Your task to perform on an android device: turn vacation reply on in the gmail app Image 0: 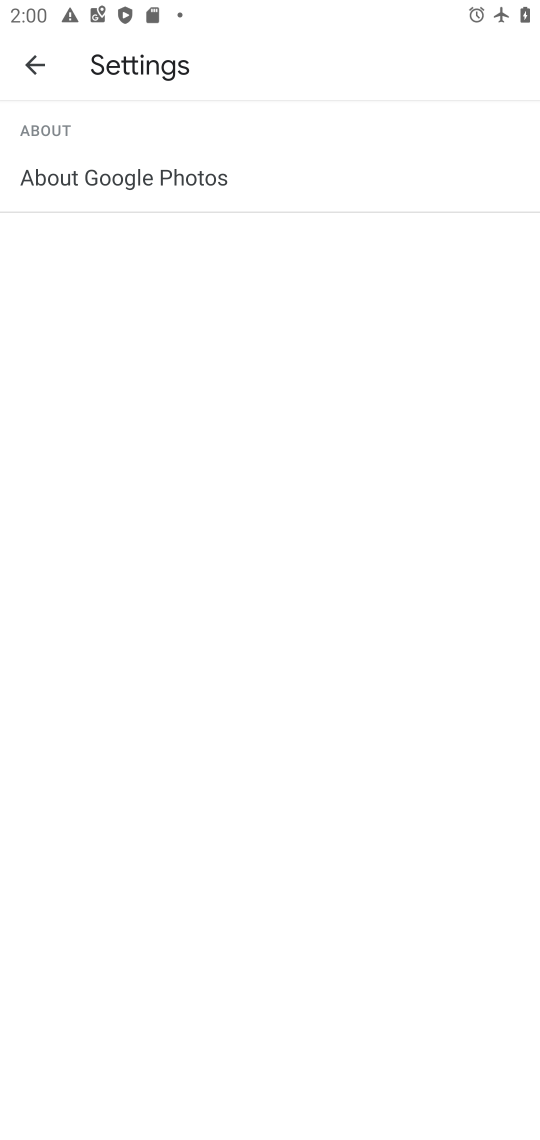
Step 0: press home button
Your task to perform on an android device: turn vacation reply on in the gmail app Image 1: 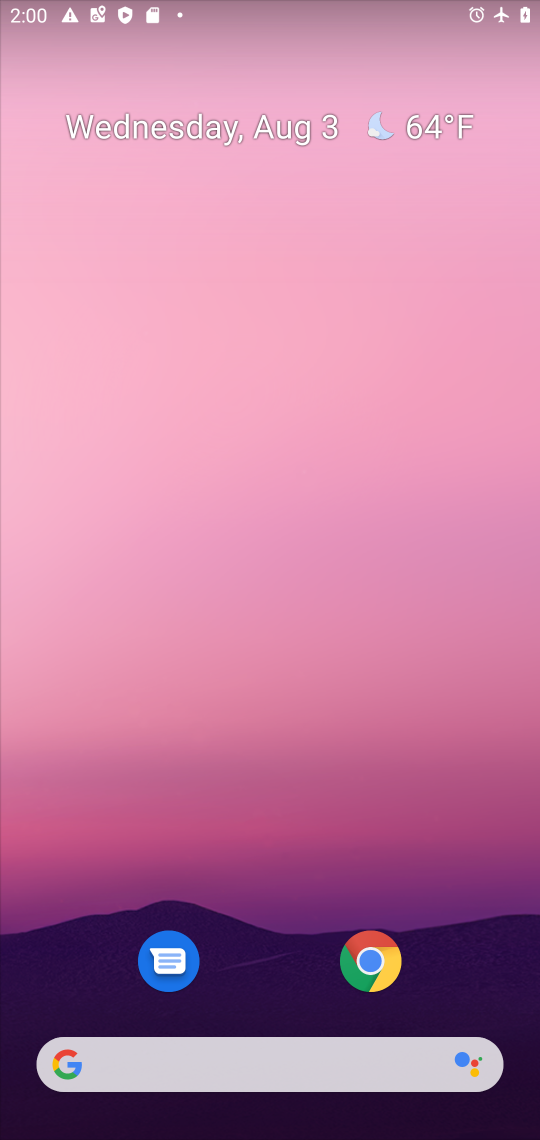
Step 1: drag from (297, 995) to (326, 25)
Your task to perform on an android device: turn vacation reply on in the gmail app Image 2: 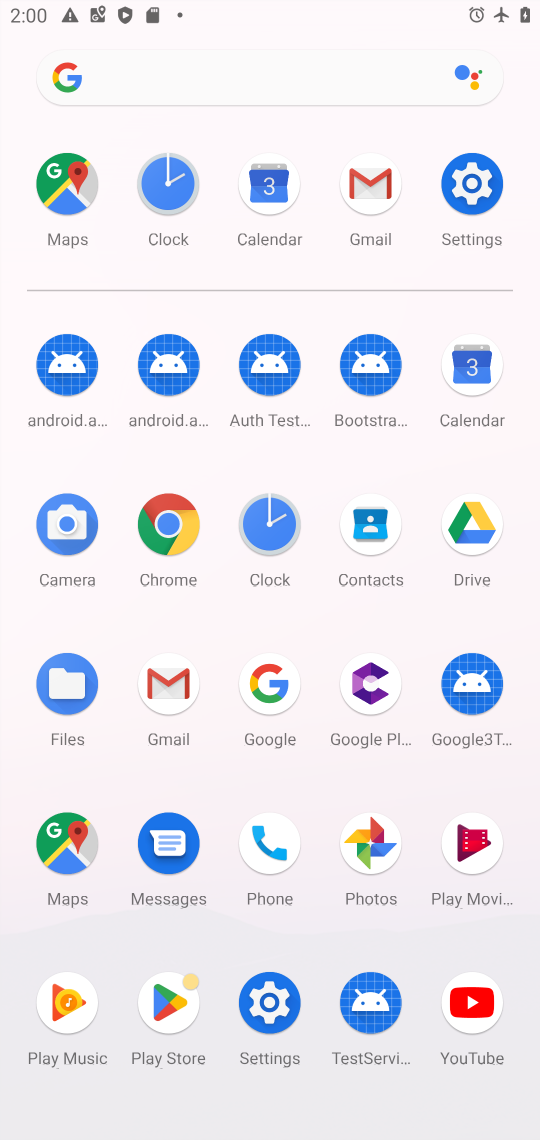
Step 2: click (361, 194)
Your task to perform on an android device: turn vacation reply on in the gmail app Image 3: 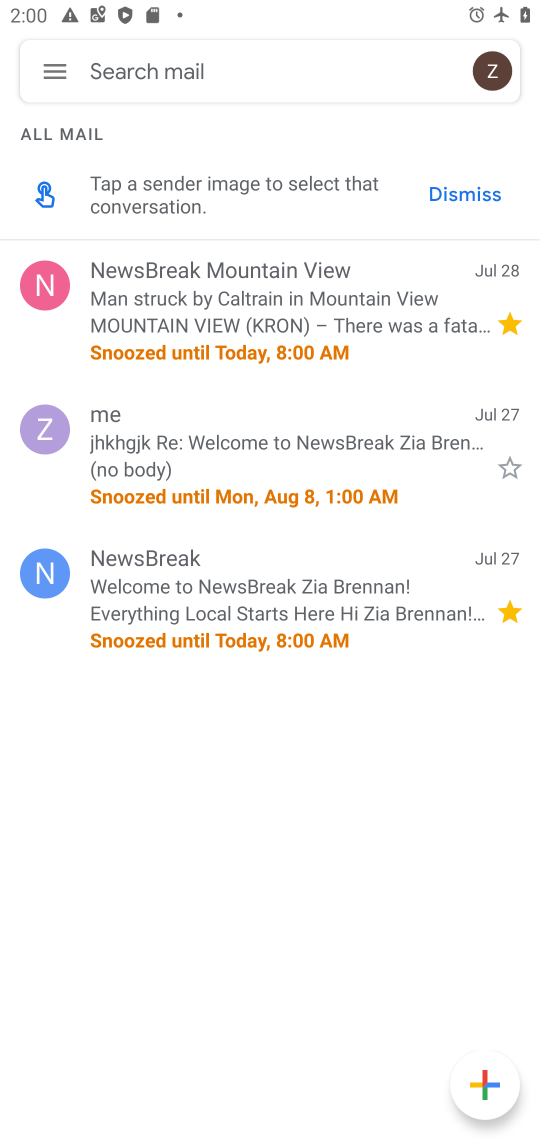
Step 3: click (55, 69)
Your task to perform on an android device: turn vacation reply on in the gmail app Image 4: 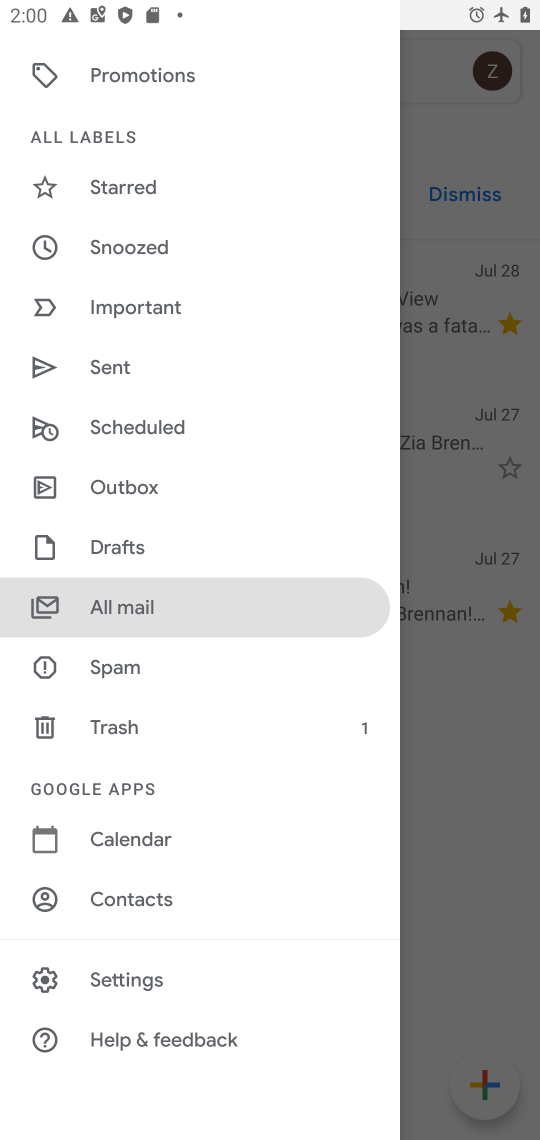
Step 4: click (139, 976)
Your task to perform on an android device: turn vacation reply on in the gmail app Image 5: 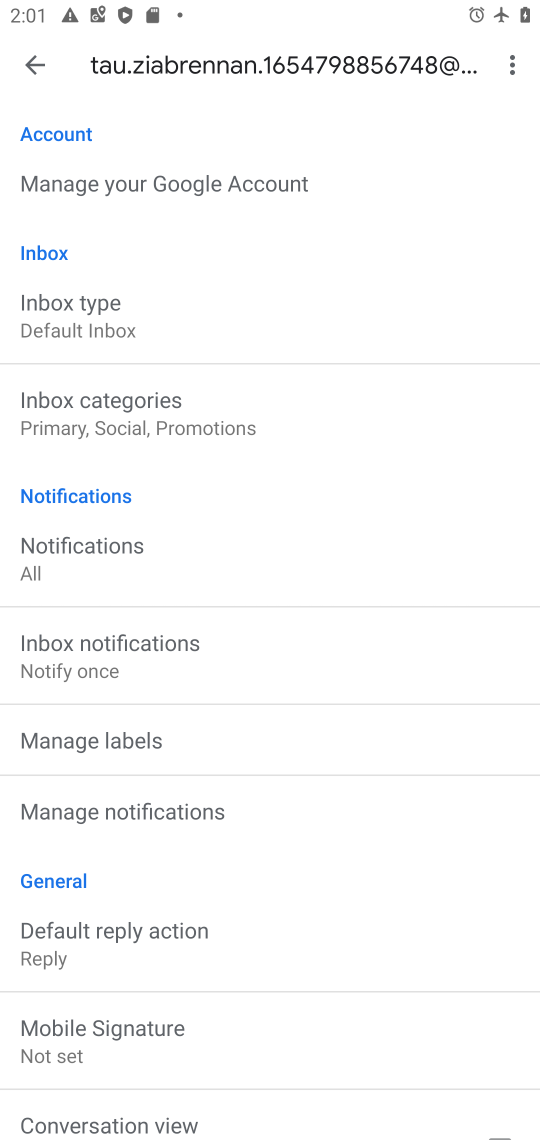
Step 5: drag from (238, 852) to (210, 355)
Your task to perform on an android device: turn vacation reply on in the gmail app Image 6: 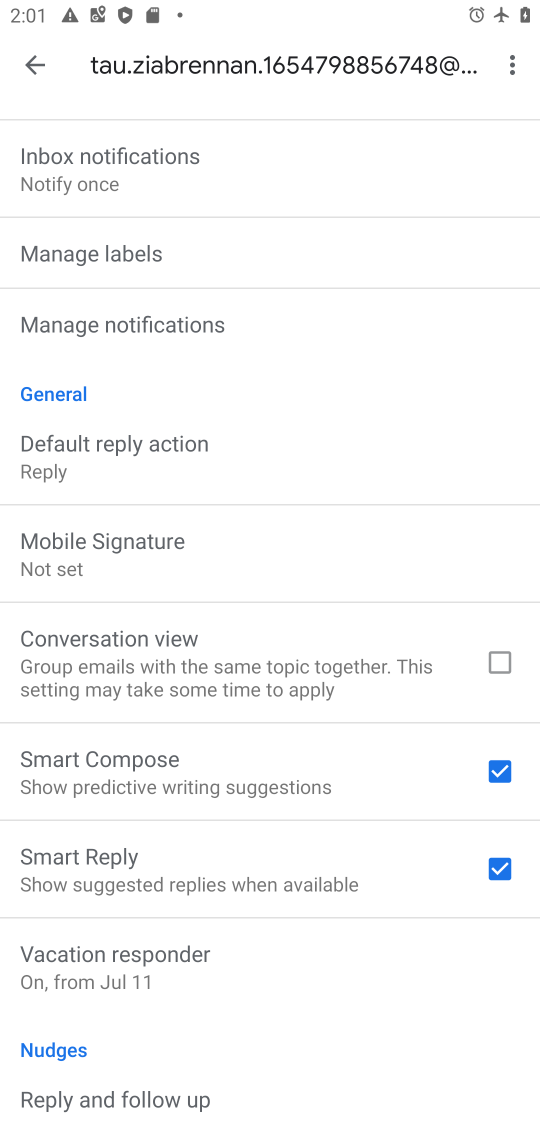
Step 6: click (87, 980)
Your task to perform on an android device: turn vacation reply on in the gmail app Image 7: 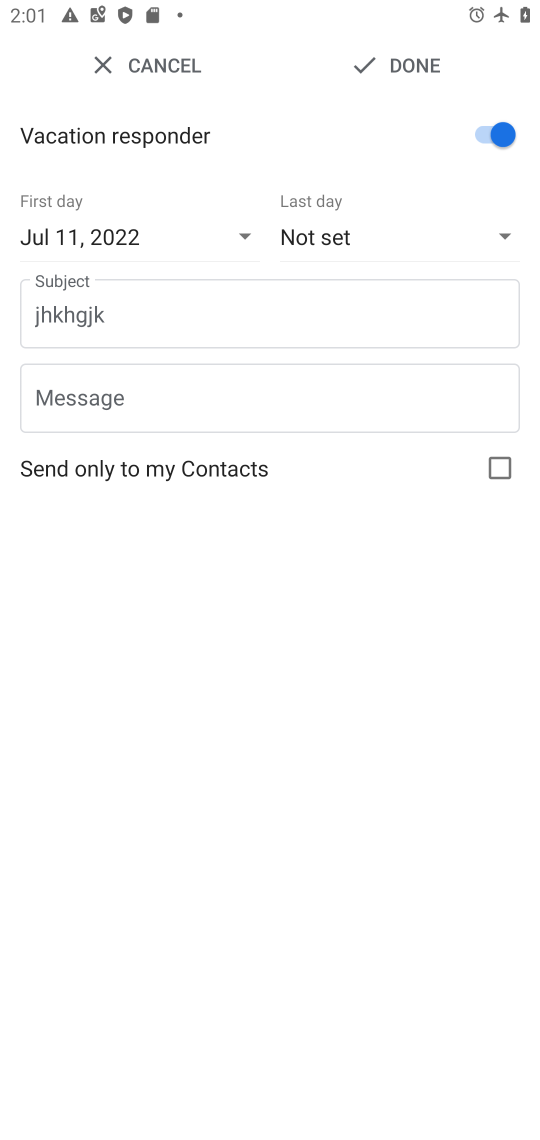
Step 7: click (411, 64)
Your task to perform on an android device: turn vacation reply on in the gmail app Image 8: 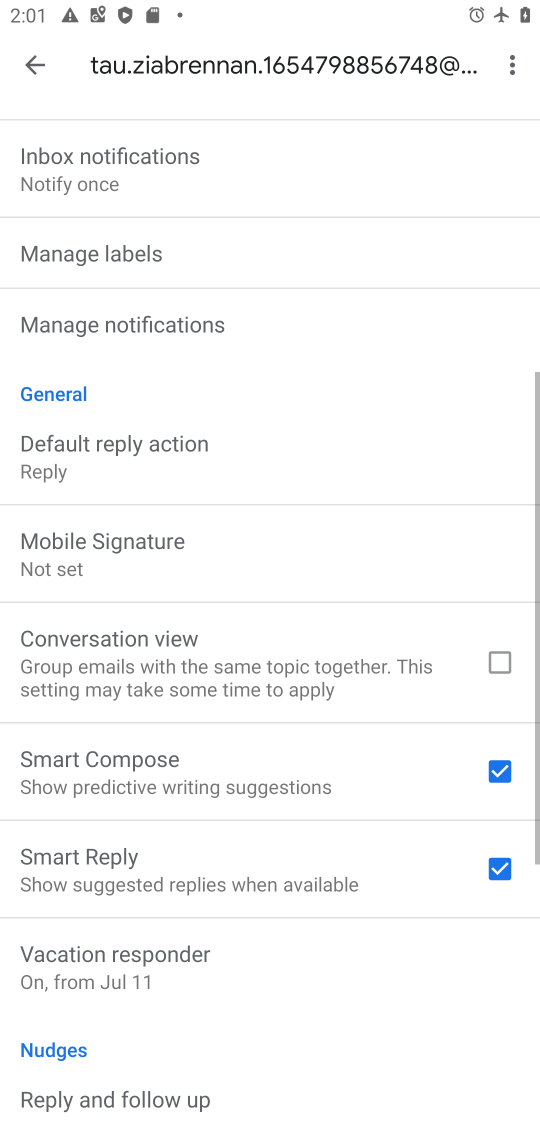
Step 8: task complete